Your task to perform on an android device: change the clock display to digital Image 0: 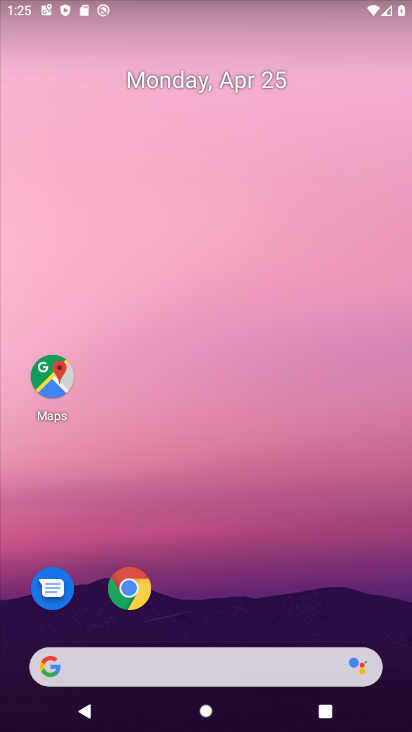
Step 0: drag from (231, 541) to (244, 253)
Your task to perform on an android device: change the clock display to digital Image 1: 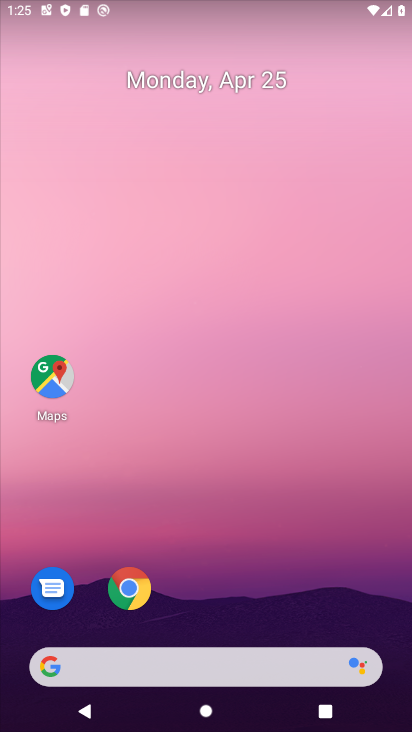
Step 1: drag from (229, 597) to (290, 193)
Your task to perform on an android device: change the clock display to digital Image 2: 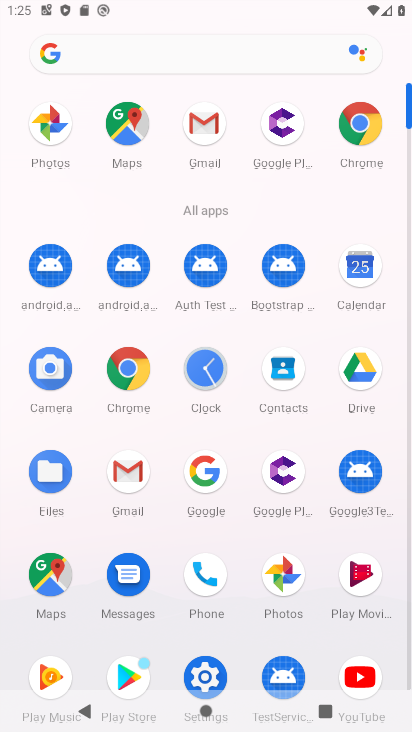
Step 2: click (208, 379)
Your task to perform on an android device: change the clock display to digital Image 3: 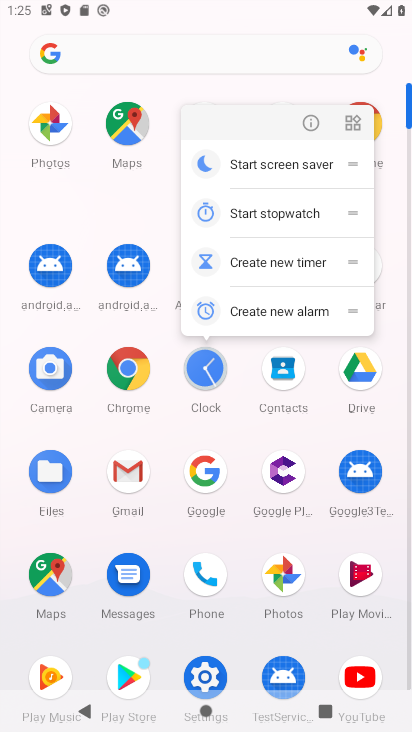
Step 3: click (306, 128)
Your task to perform on an android device: change the clock display to digital Image 4: 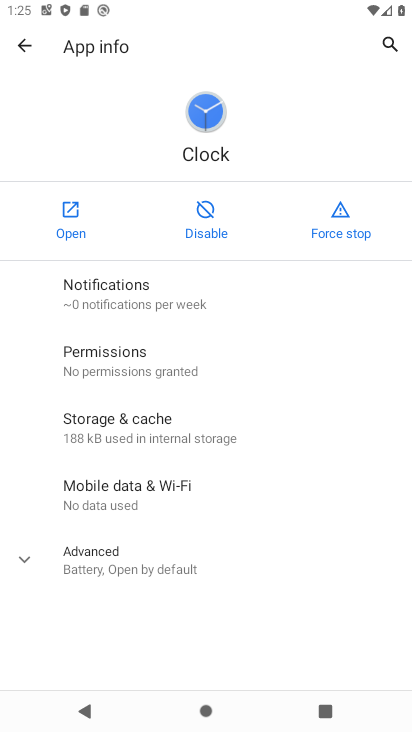
Step 4: click (87, 222)
Your task to perform on an android device: change the clock display to digital Image 5: 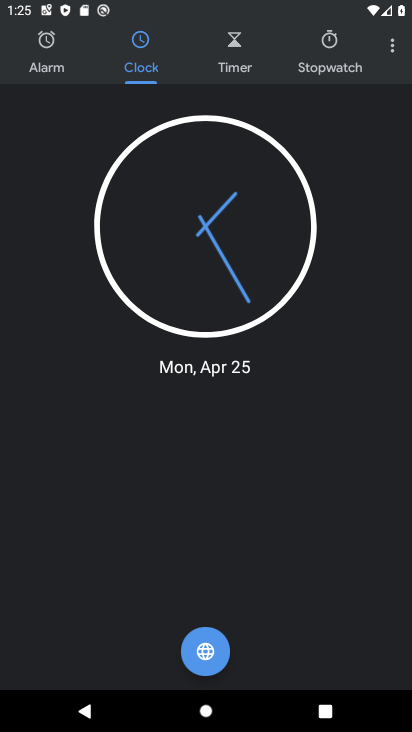
Step 5: click (393, 51)
Your task to perform on an android device: change the clock display to digital Image 6: 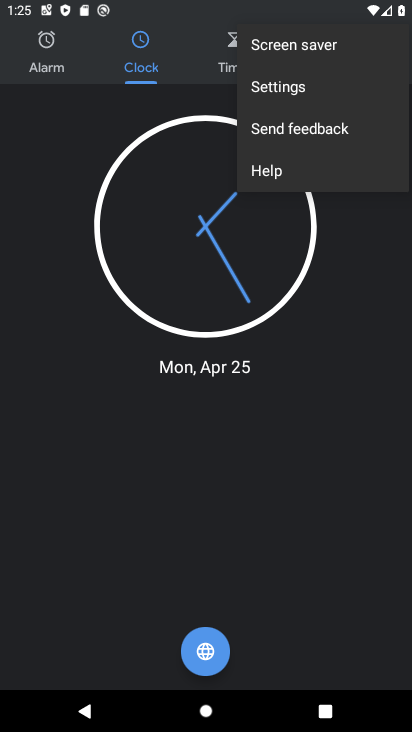
Step 6: click (311, 95)
Your task to perform on an android device: change the clock display to digital Image 7: 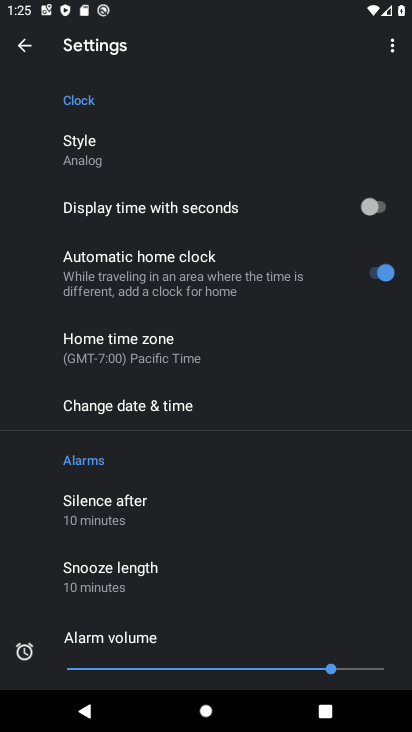
Step 7: click (182, 152)
Your task to perform on an android device: change the clock display to digital Image 8: 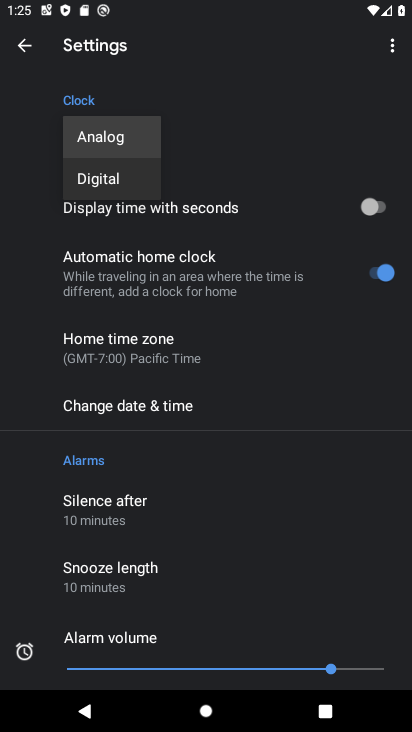
Step 8: click (101, 181)
Your task to perform on an android device: change the clock display to digital Image 9: 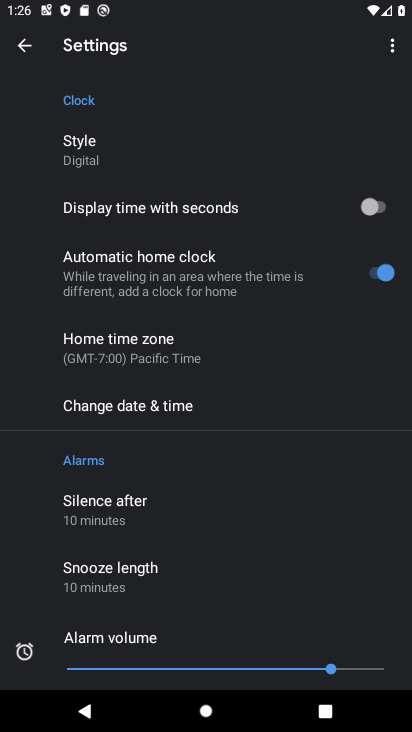
Step 9: task complete